Your task to perform on an android device: Google the capital of Panama Image 0: 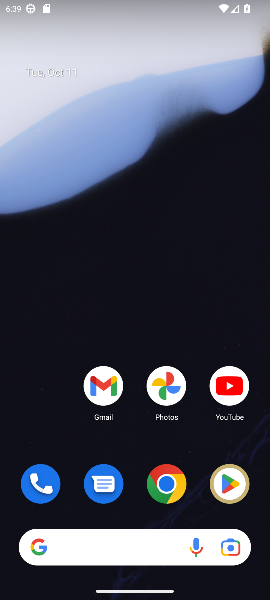
Step 0: click (166, 484)
Your task to perform on an android device: Google the capital of Panama Image 1: 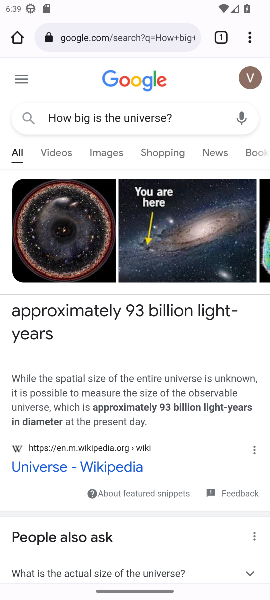
Step 1: click (179, 39)
Your task to perform on an android device: Google the capital of Panama Image 2: 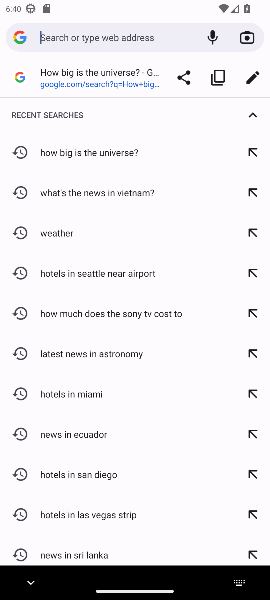
Step 2: type "capital of Panama"
Your task to perform on an android device: Google the capital of Panama Image 3: 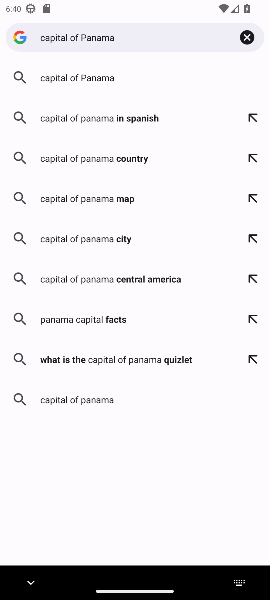
Step 3: click (85, 79)
Your task to perform on an android device: Google the capital of Panama Image 4: 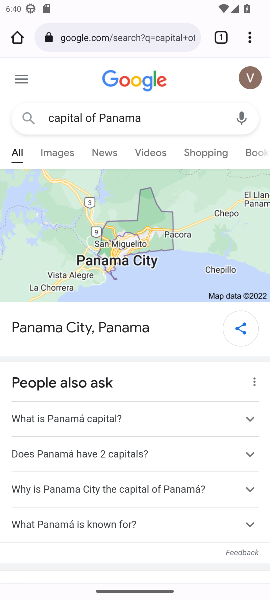
Step 4: task complete